Your task to perform on an android device: check google app version Image 0: 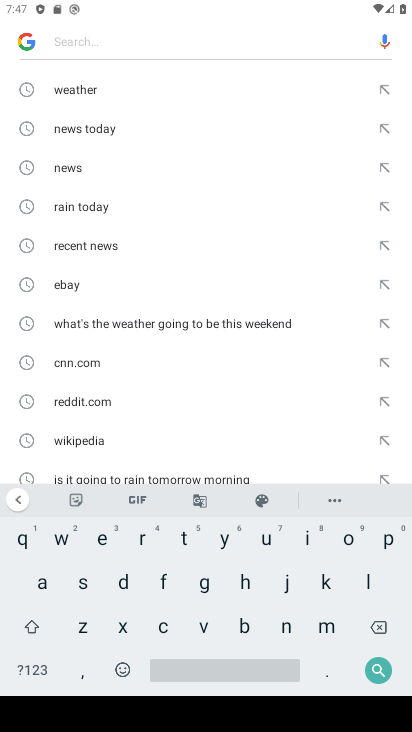
Step 0: press home button
Your task to perform on an android device: check google app version Image 1: 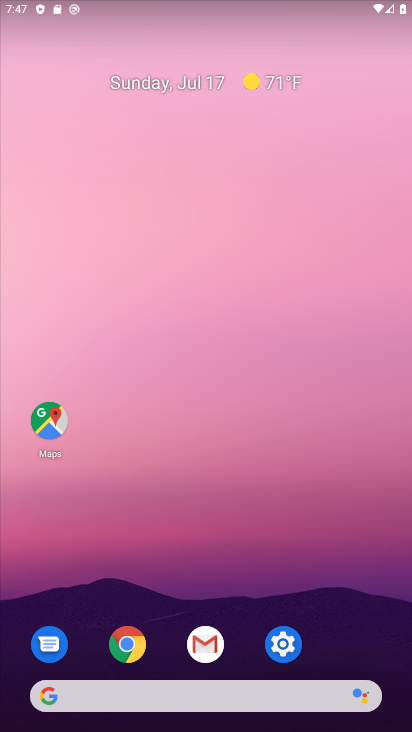
Step 1: click (121, 658)
Your task to perform on an android device: check google app version Image 2: 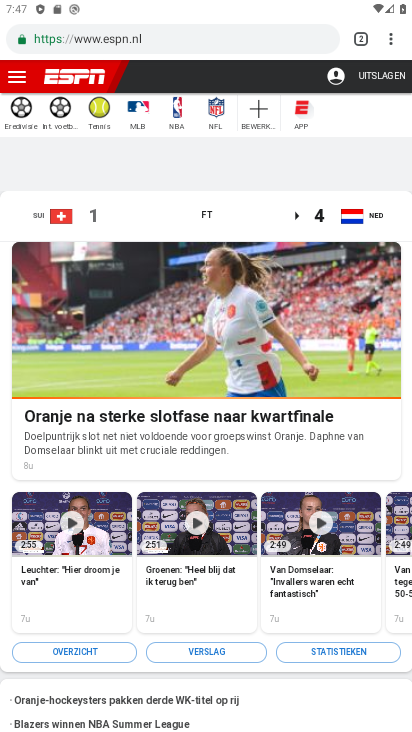
Step 2: click (391, 42)
Your task to perform on an android device: check google app version Image 3: 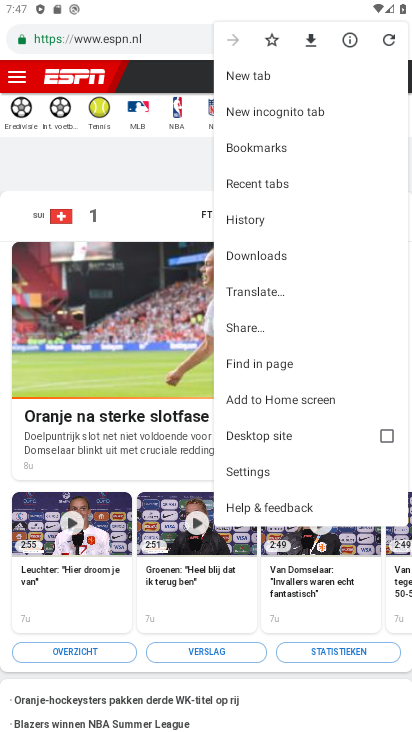
Step 3: click (251, 473)
Your task to perform on an android device: check google app version Image 4: 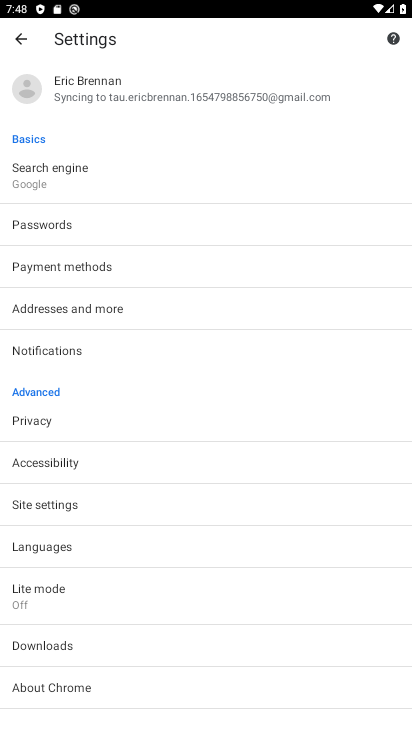
Step 4: click (63, 698)
Your task to perform on an android device: check google app version Image 5: 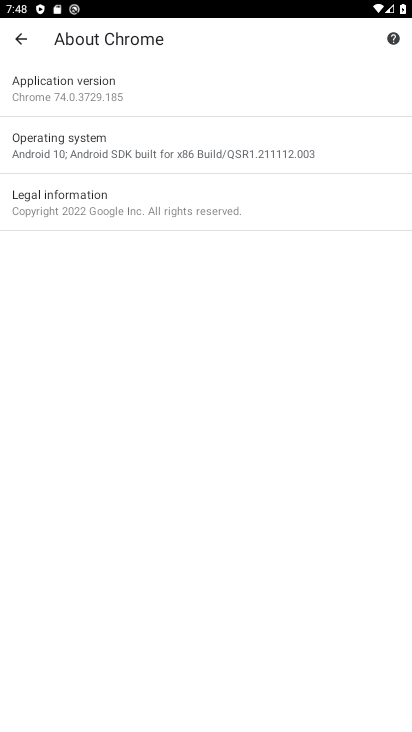
Step 5: click (128, 84)
Your task to perform on an android device: check google app version Image 6: 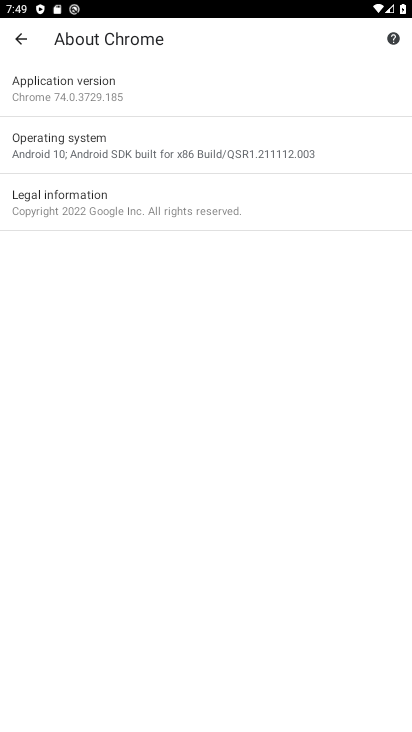
Step 6: task complete